Your task to perform on an android device: change keyboard looks Image 0: 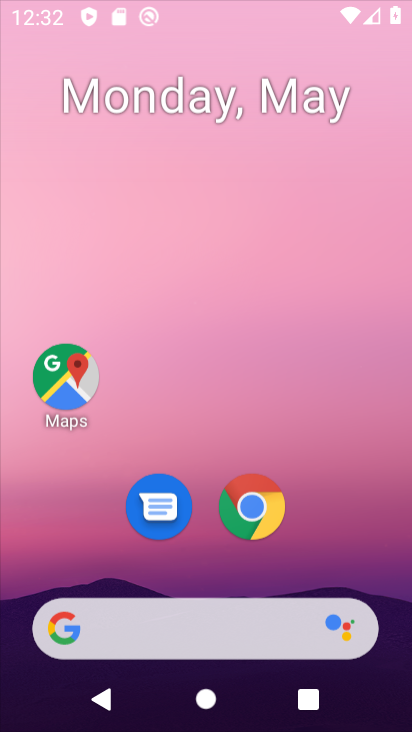
Step 0: click (238, 142)
Your task to perform on an android device: change keyboard looks Image 1: 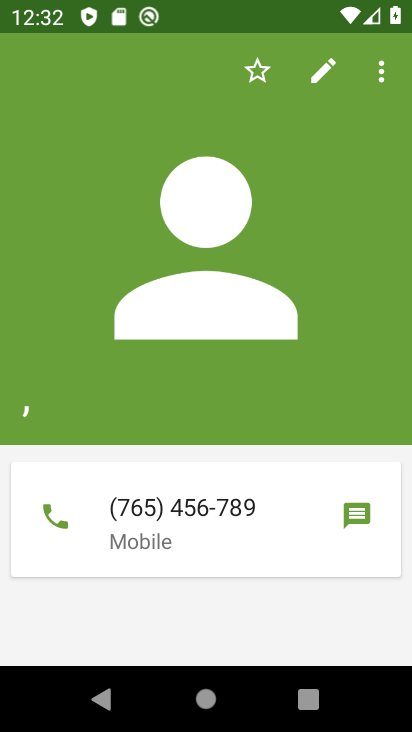
Step 1: press home button
Your task to perform on an android device: change keyboard looks Image 2: 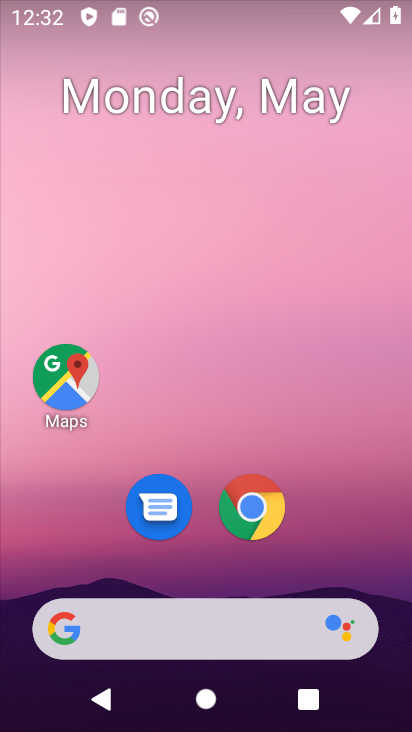
Step 2: drag from (234, 722) to (244, 171)
Your task to perform on an android device: change keyboard looks Image 3: 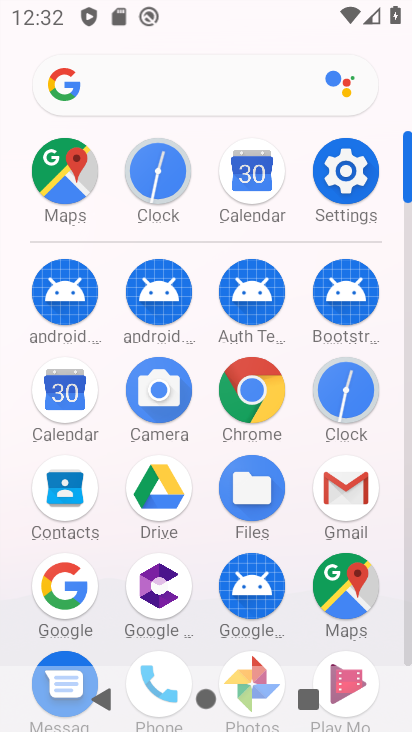
Step 3: click (335, 173)
Your task to perform on an android device: change keyboard looks Image 4: 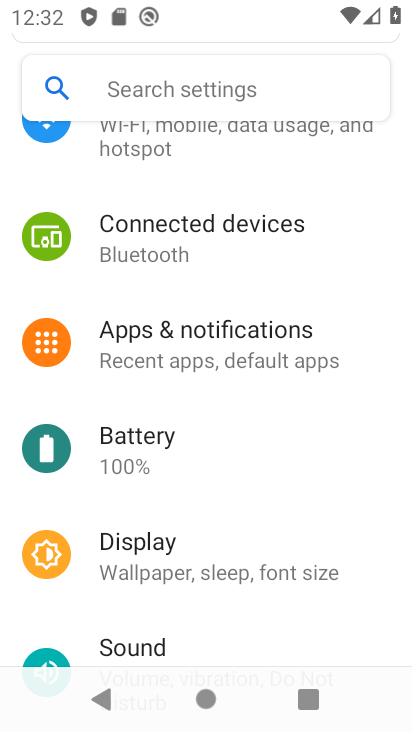
Step 4: drag from (196, 628) to (198, 258)
Your task to perform on an android device: change keyboard looks Image 5: 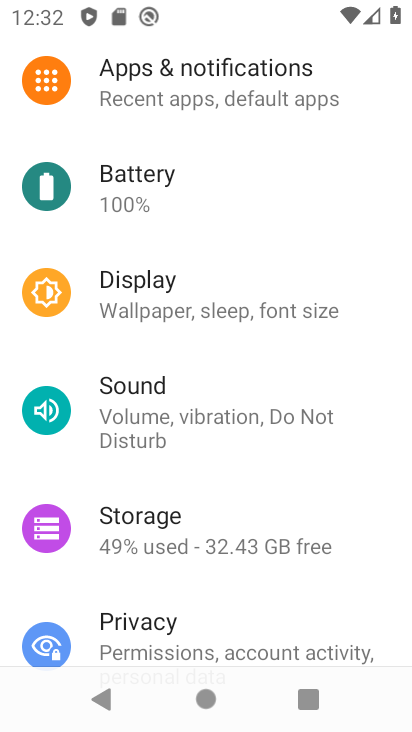
Step 5: drag from (177, 627) to (181, 213)
Your task to perform on an android device: change keyboard looks Image 6: 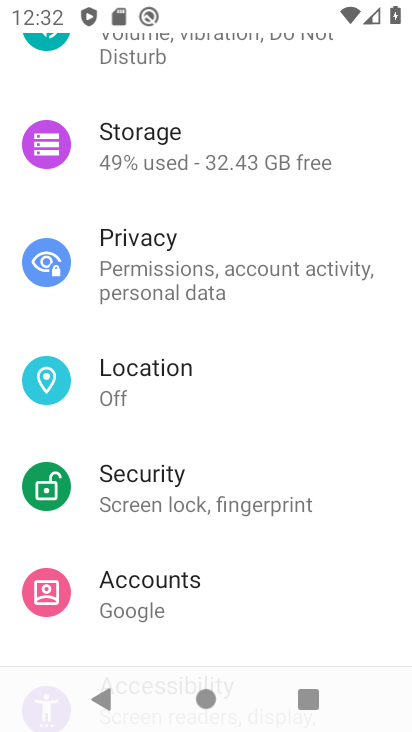
Step 6: drag from (188, 632) to (188, 233)
Your task to perform on an android device: change keyboard looks Image 7: 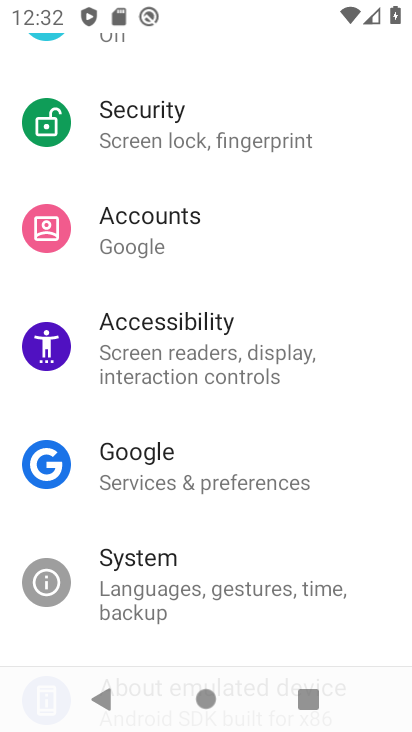
Step 7: click (151, 574)
Your task to perform on an android device: change keyboard looks Image 8: 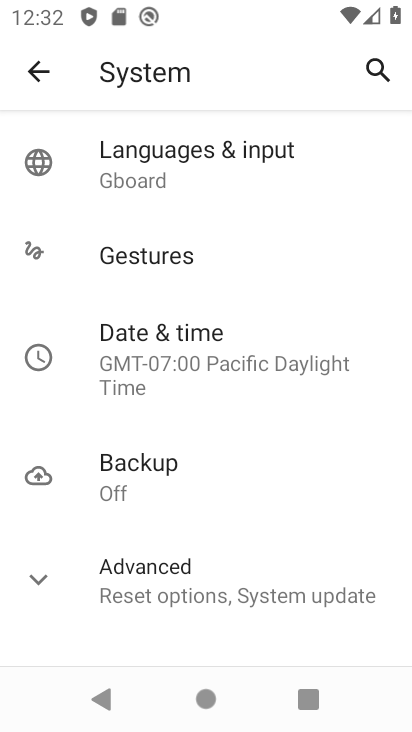
Step 8: click (148, 157)
Your task to perform on an android device: change keyboard looks Image 9: 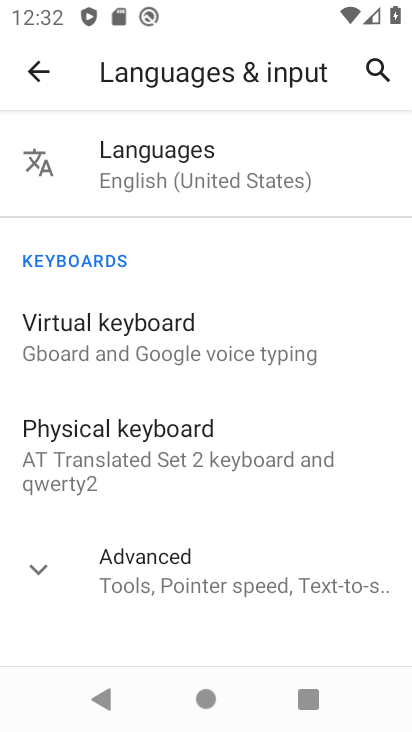
Step 9: click (145, 323)
Your task to perform on an android device: change keyboard looks Image 10: 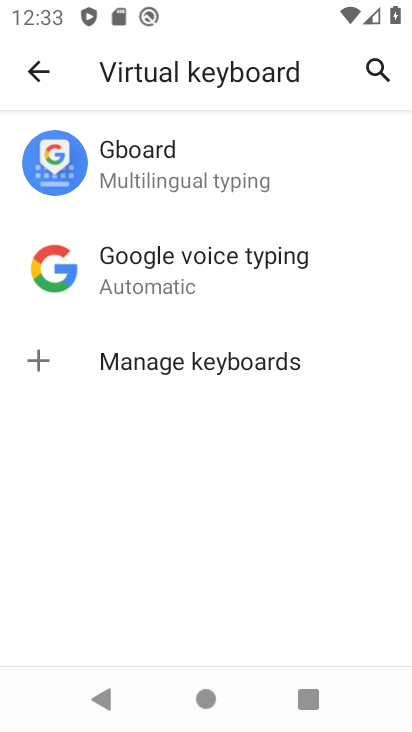
Step 10: click (174, 152)
Your task to perform on an android device: change keyboard looks Image 11: 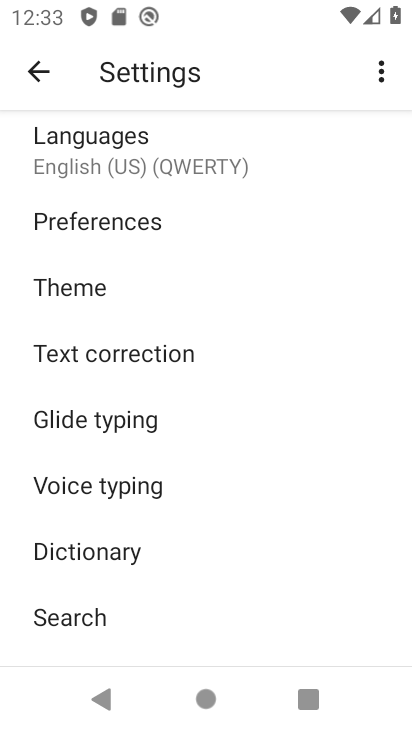
Step 11: click (82, 288)
Your task to perform on an android device: change keyboard looks Image 12: 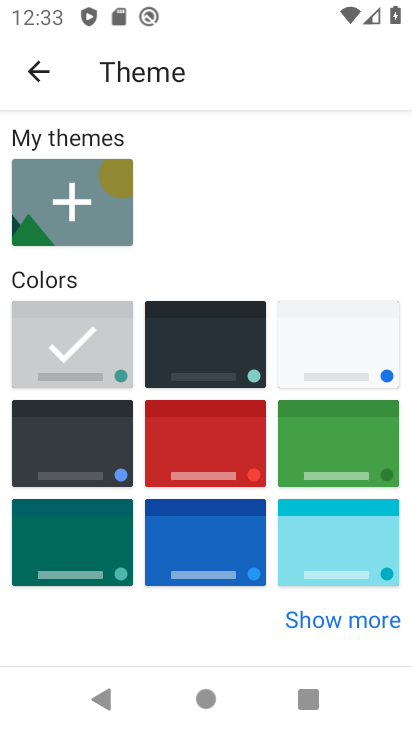
Step 12: click (232, 348)
Your task to perform on an android device: change keyboard looks Image 13: 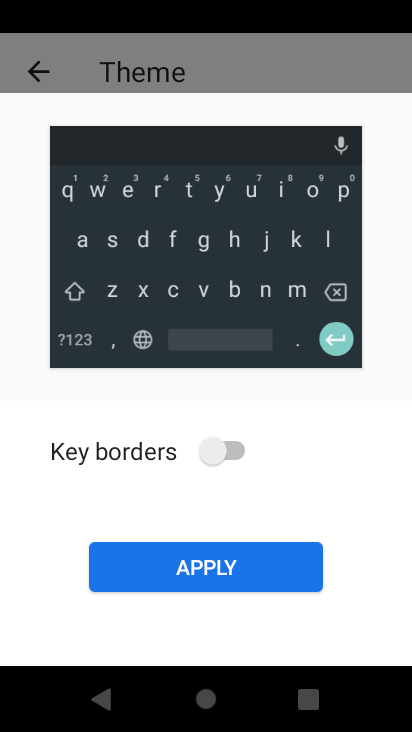
Step 13: click (227, 451)
Your task to perform on an android device: change keyboard looks Image 14: 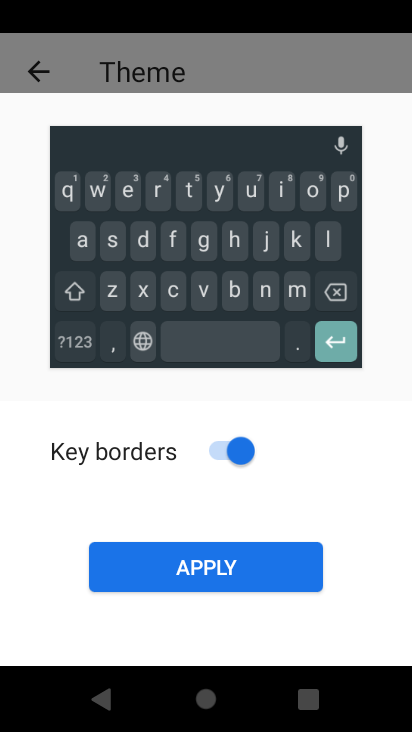
Step 14: click (218, 563)
Your task to perform on an android device: change keyboard looks Image 15: 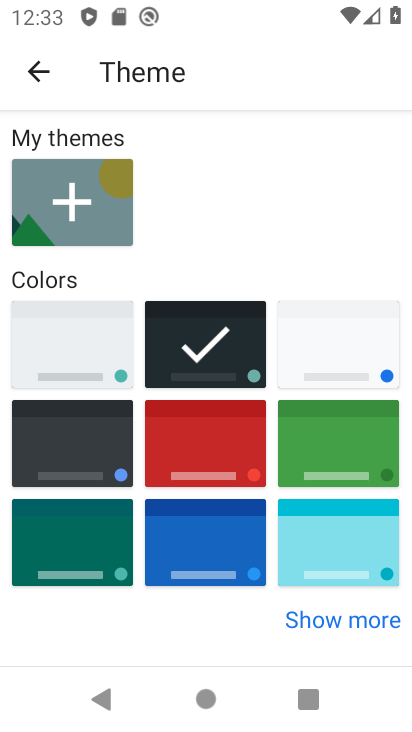
Step 15: task complete